Your task to perform on an android device: Go to Maps Image 0: 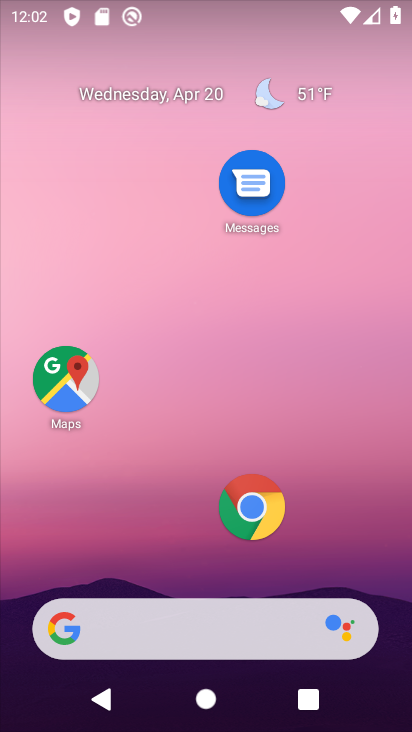
Step 0: click (66, 380)
Your task to perform on an android device: Go to Maps Image 1: 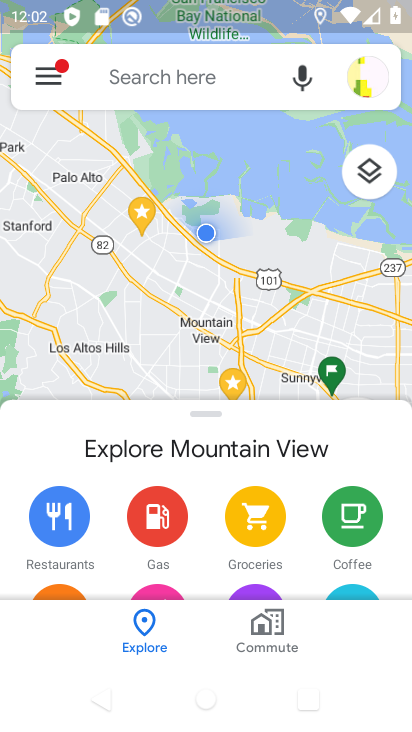
Step 1: task complete